Your task to perform on an android device: open wifi settings Image 0: 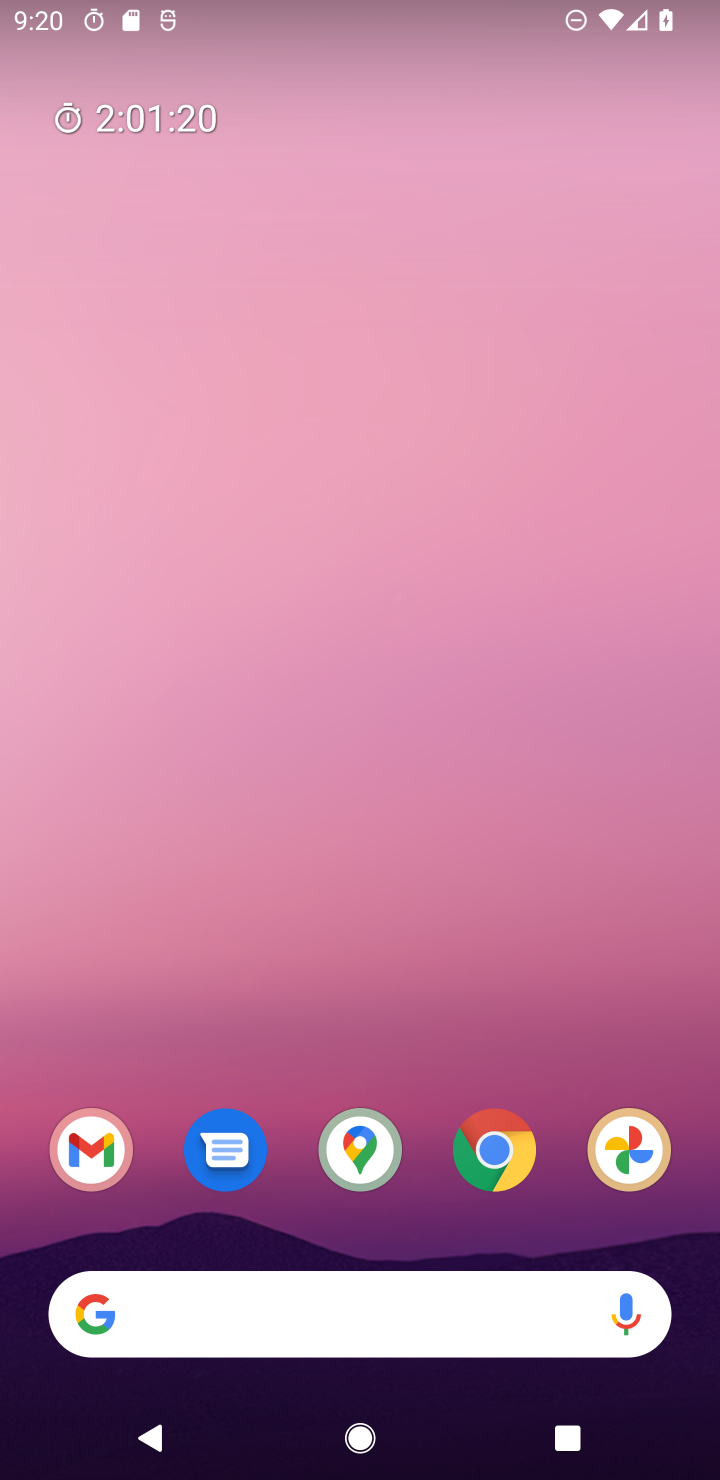
Step 0: drag from (345, 1311) to (365, 0)
Your task to perform on an android device: open wifi settings Image 1: 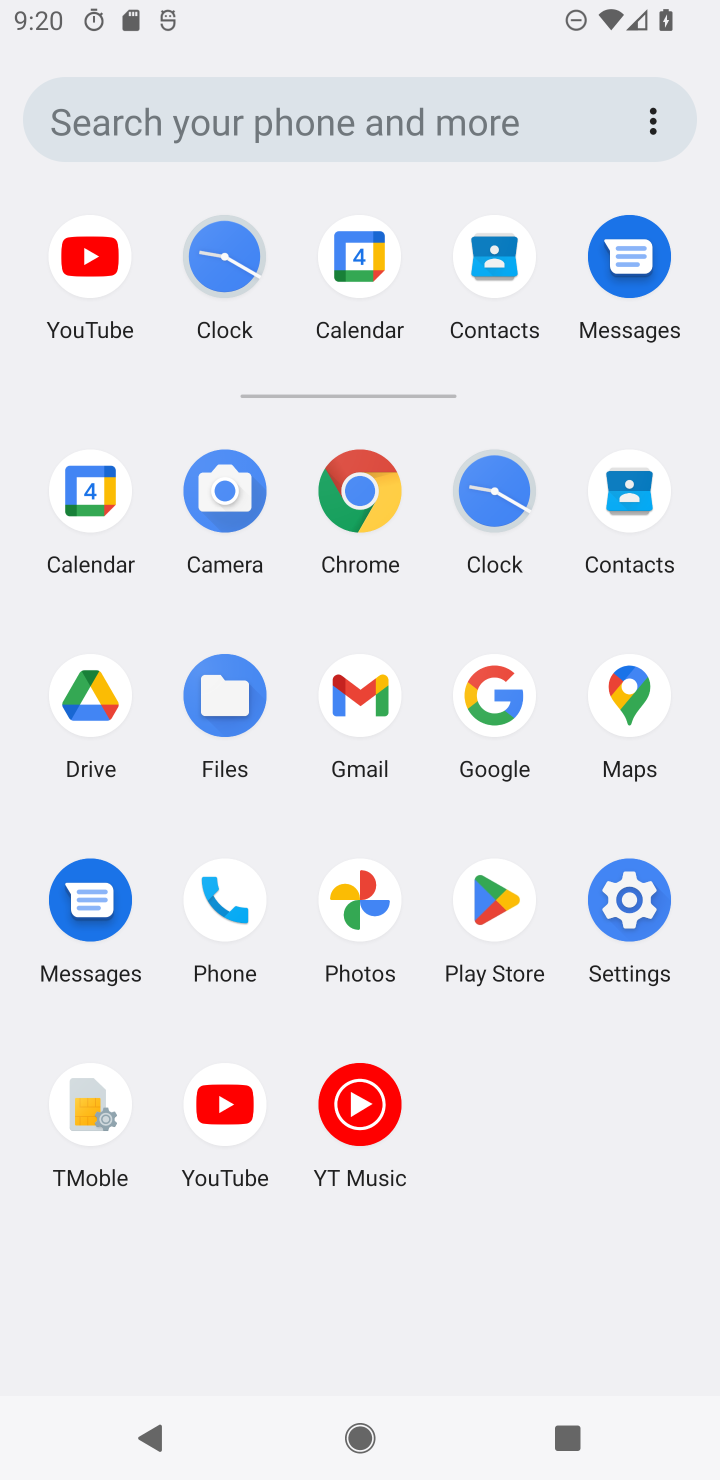
Step 1: click (643, 883)
Your task to perform on an android device: open wifi settings Image 2: 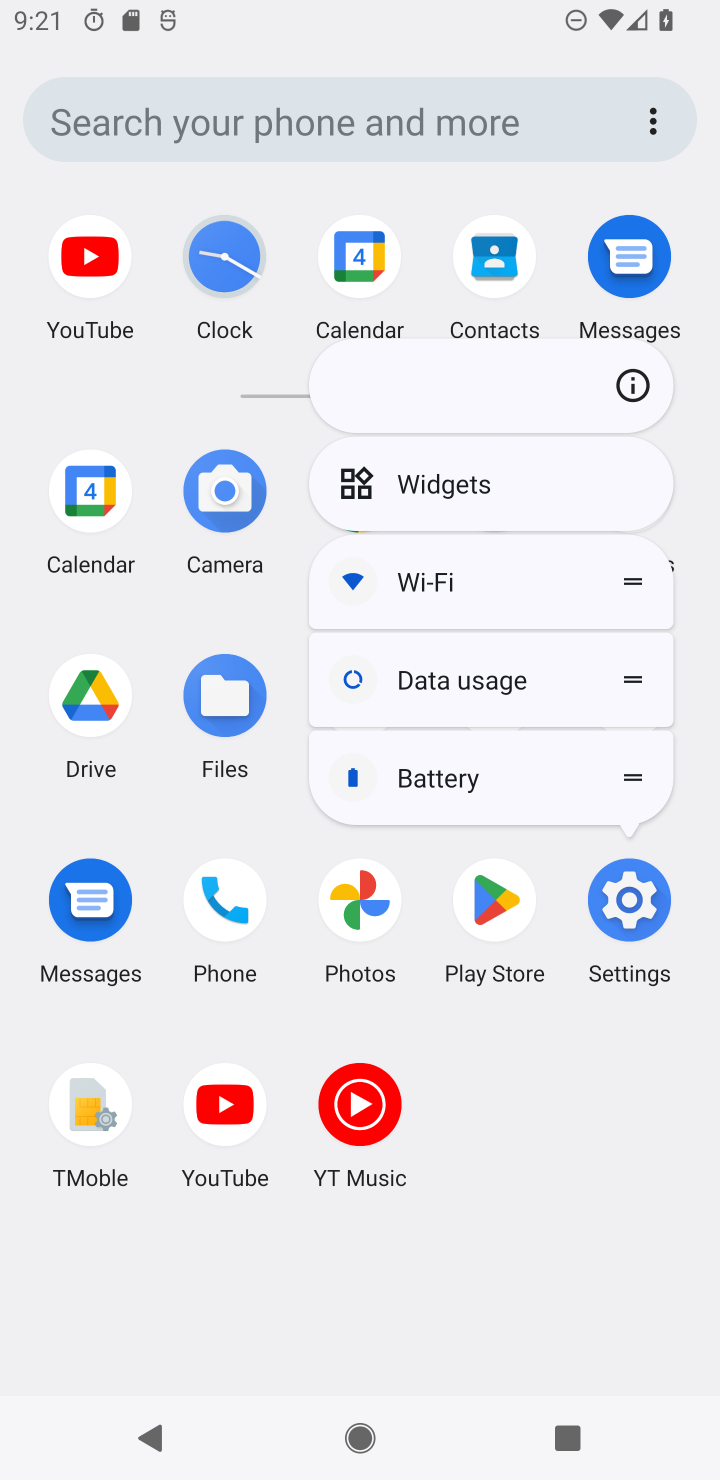
Step 2: click (621, 909)
Your task to perform on an android device: open wifi settings Image 3: 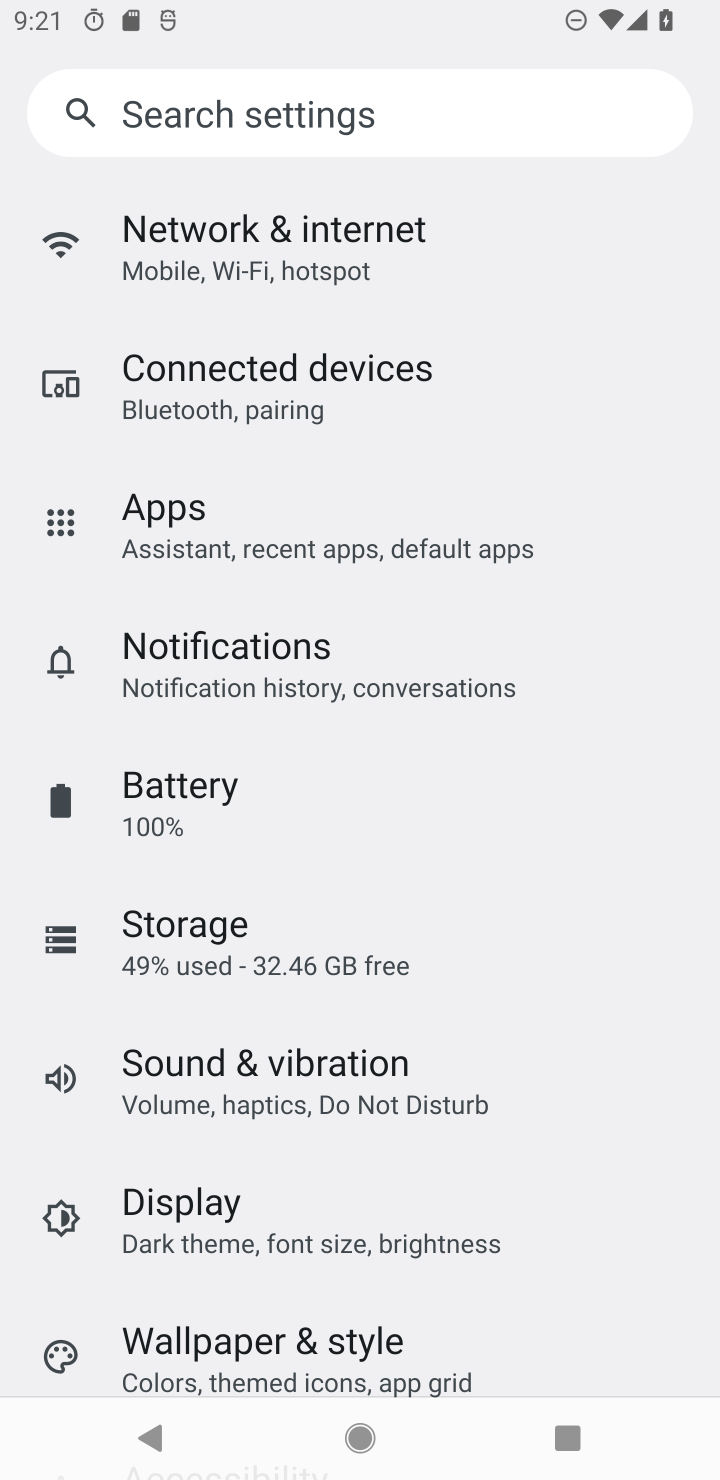
Step 3: click (303, 264)
Your task to perform on an android device: open wifi settings Image 4: 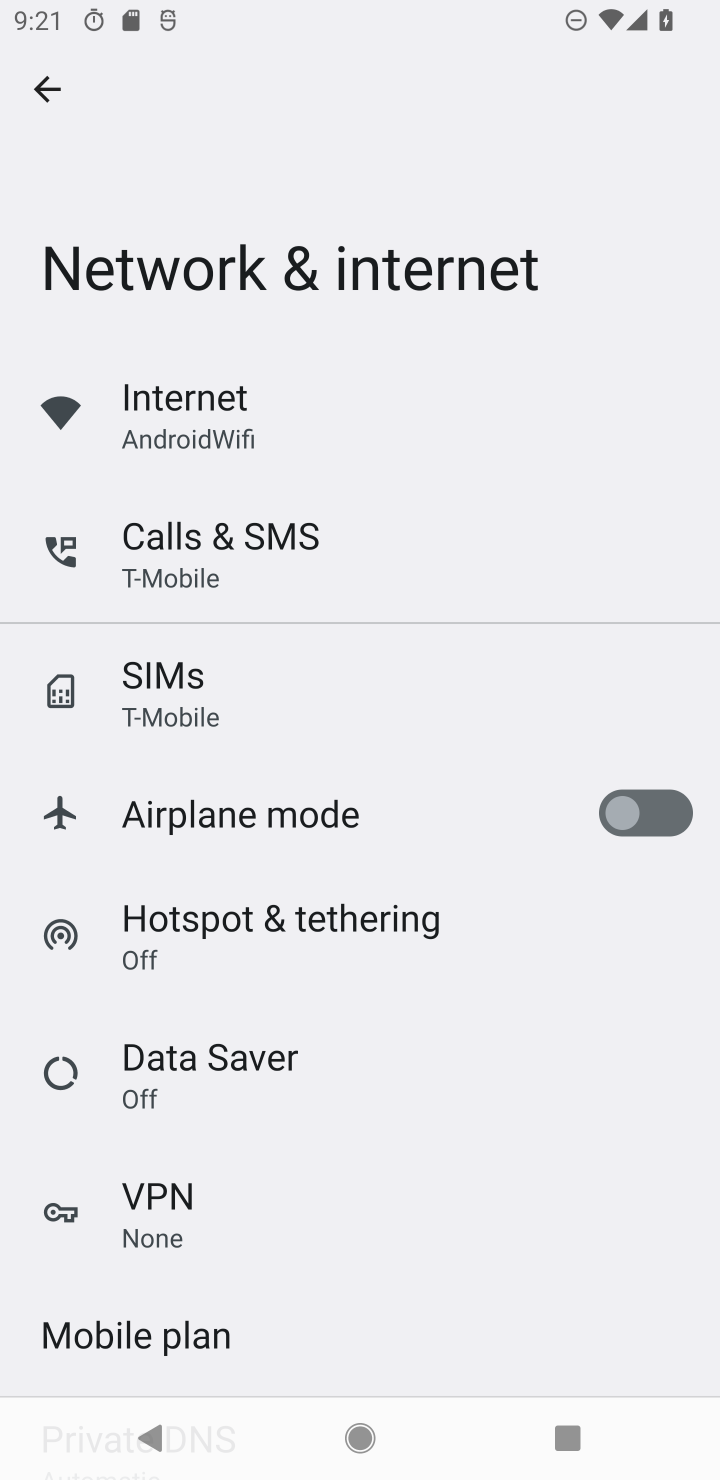
Step 4: click (215, 403)
Your task to perform on an android device: open wifi settings Image 5: 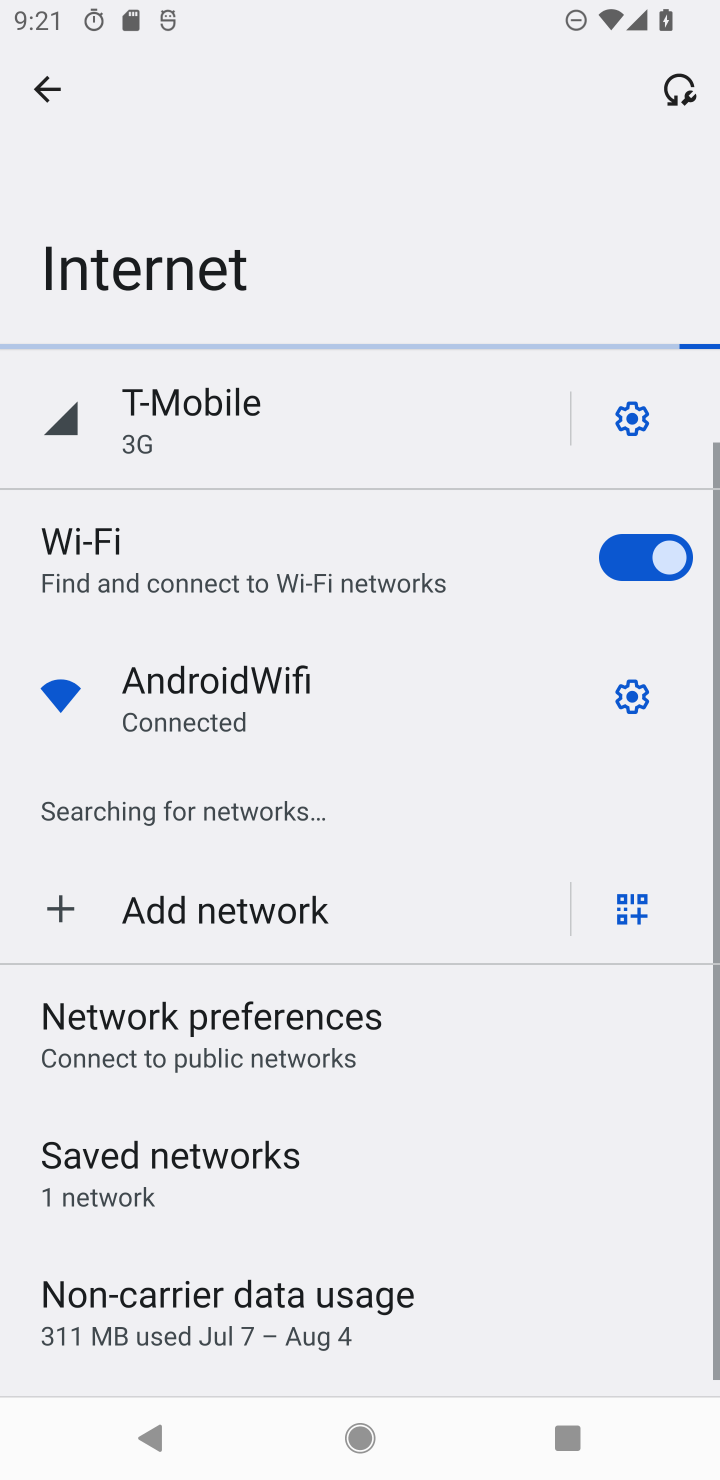
Step 5: task complete